Your task to perform on an android device: turn off smart reply in the gmail app Image 0: 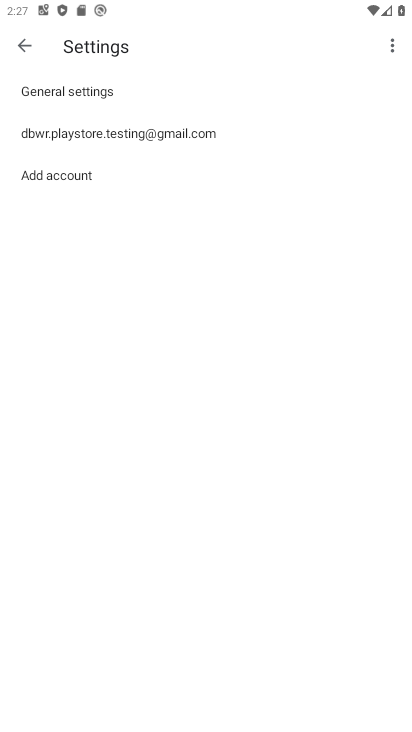
Step 0: press home button
Your task to perform on an android device: turn off smart reply in the gmail app Image 1: 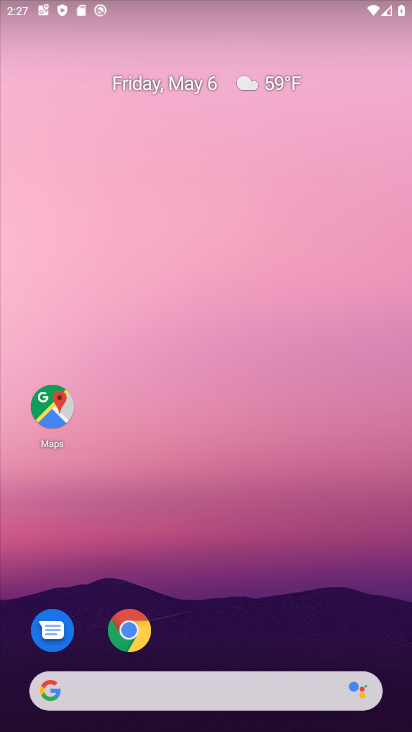
Step 1: drag from (200, 568) to (133, 118)
Your task to perform on an android device: turn off smart reply in the gmail app Image 2: 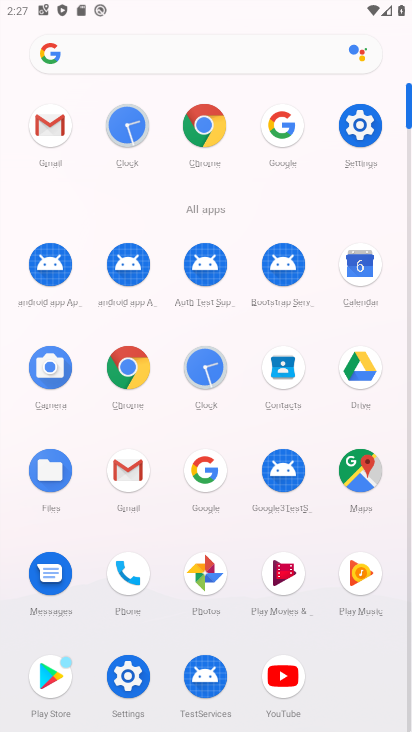
Step 2: click (50, 119)
Your task to perform on an android device: turn off smart reply in the gmail app Image 3: 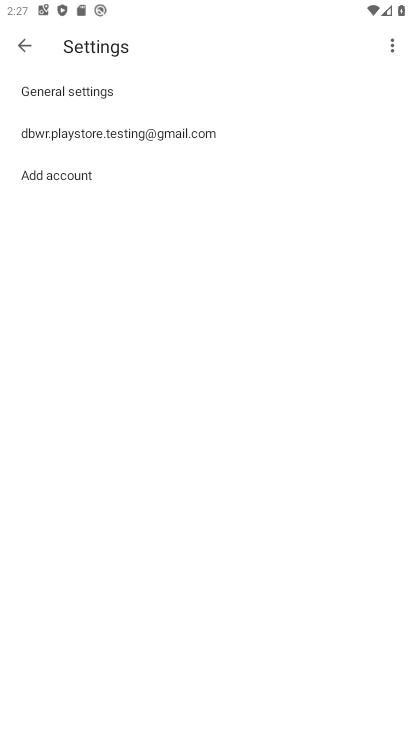
Step 3: click (101, 126)
Your task to perform on an android device: turn off smart reply in the gmail app Image 4: 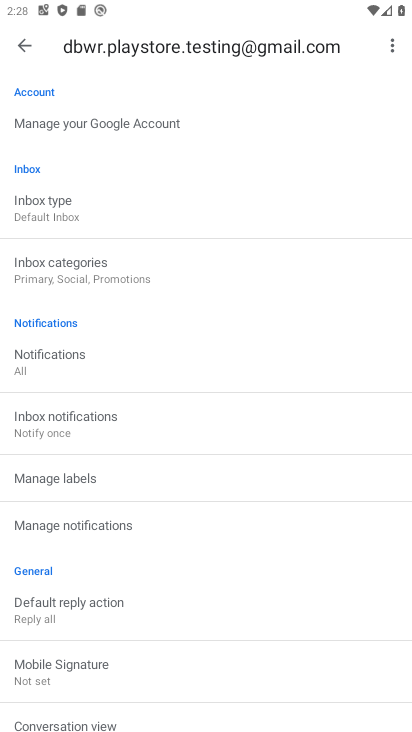
Step 4: drag from (118, 559) to (123, 193)
Your task to perform on an android device: turn off smart reply in the gmail app Image 5: 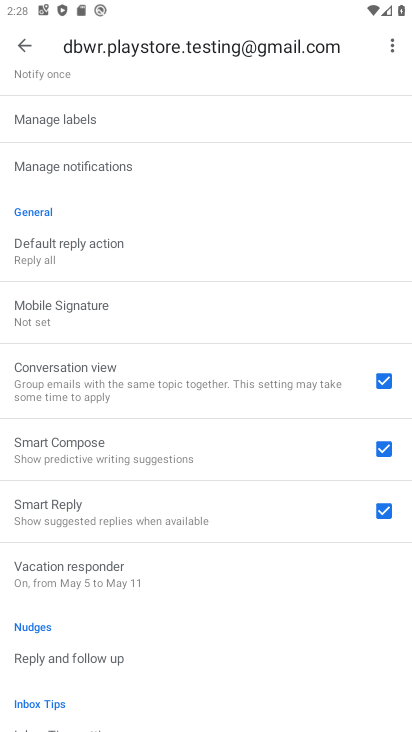
Step 5: click (384, 514)
Your task to perform on an android device: turn off smart reply in the gmail app Image 6: 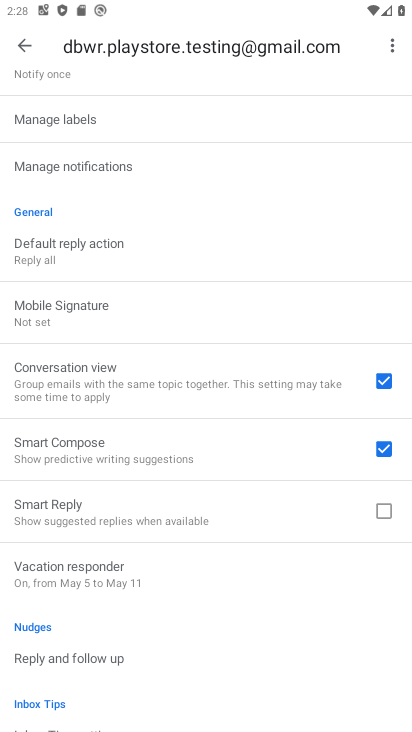
Step 6: task complete